Your task to perform on an android device: turn notification dots off Image 0: 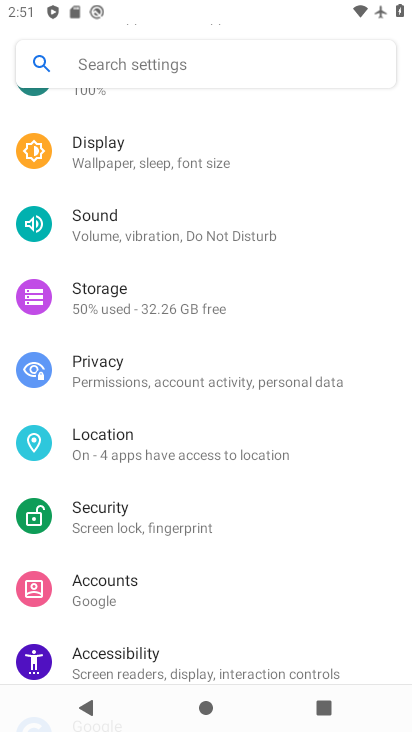
Step 0: press back button
Your task to perform on an android device: turn notification dots off Image 1: 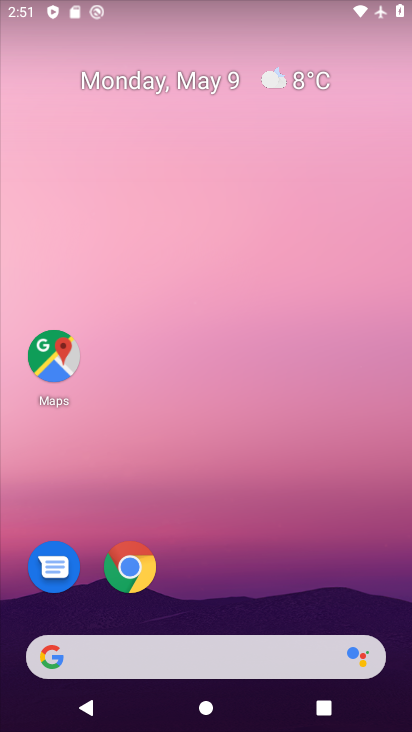
Step 1: drag from (296, 571) to (230, 6)
Your task to perform on an android device: turn notification dots off Image 2: 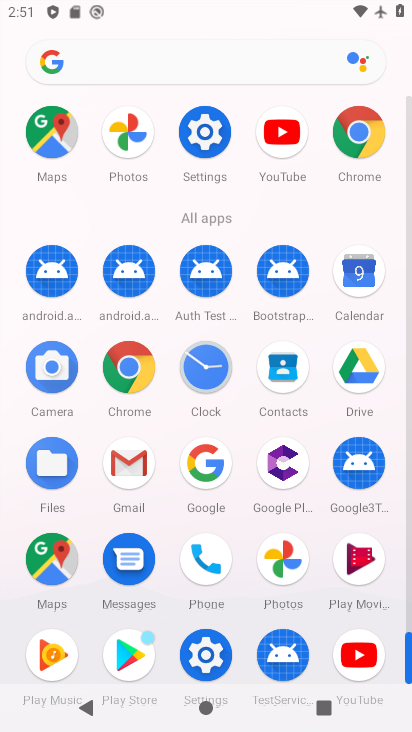
Step 2: click (202, 131)
Your task to perform on an android device: turn notification dots off Image 3: 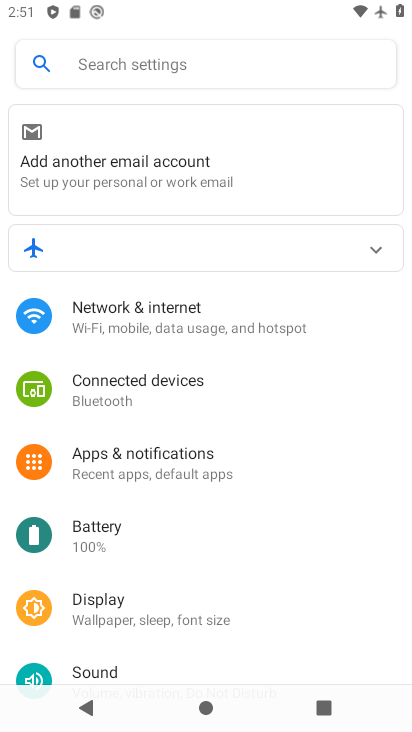
Step 3: drag from (283, 492) to (288, 78)
Your task to perform on an android device: turn notification dots off Image 4: 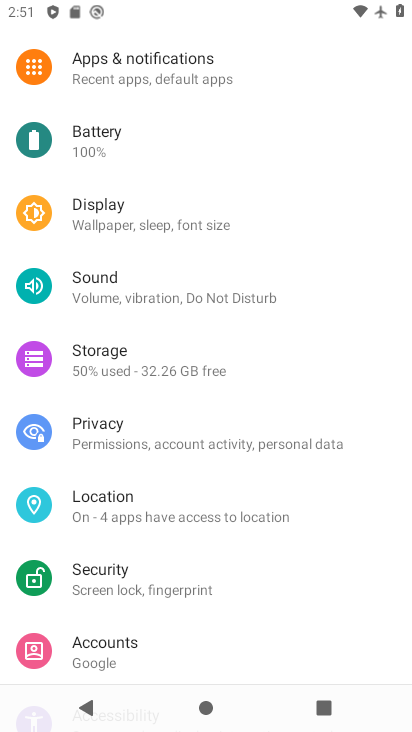
Step 4: click (165, 63)
Your task to perform on an android device: turn notification dots off Image 5: 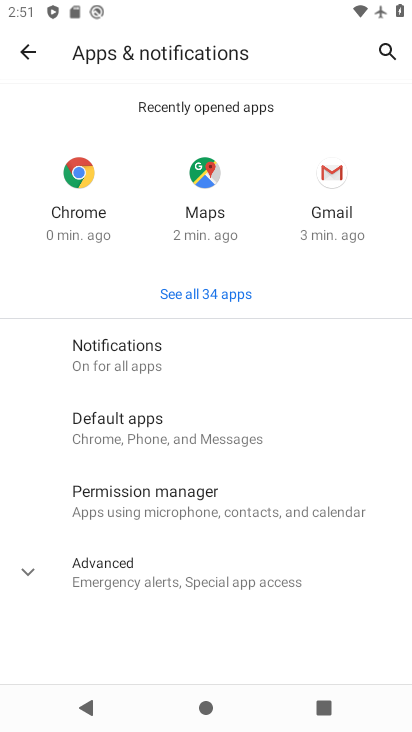
Step 5: click (170, 363)
Your task to perform on an android device: turn notification dots off Image 6: 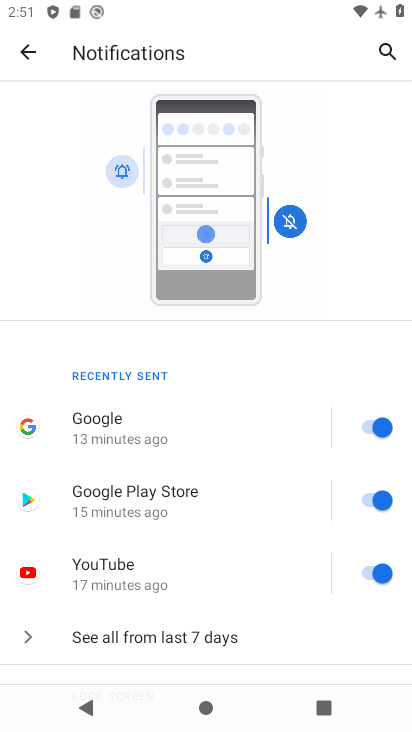
Step 6: drag from (234, 586) to (258, 132)
Your task to perform on an android device: turn notification dots off Image 7: 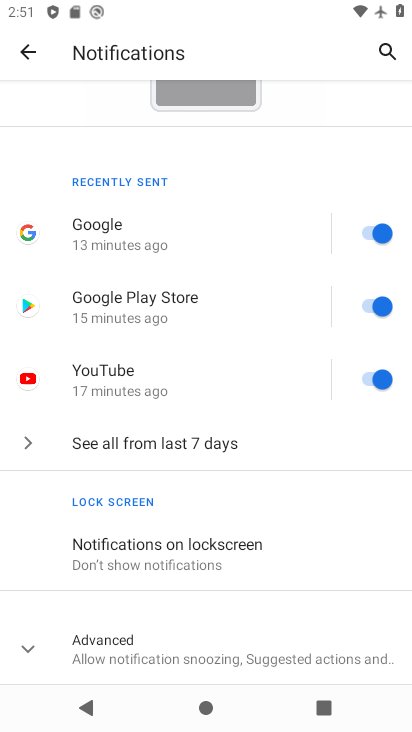
Step 7: drag from (226, 565) to (245, 156)
Your task to perform on an android device: turn notification dots off Image 8: 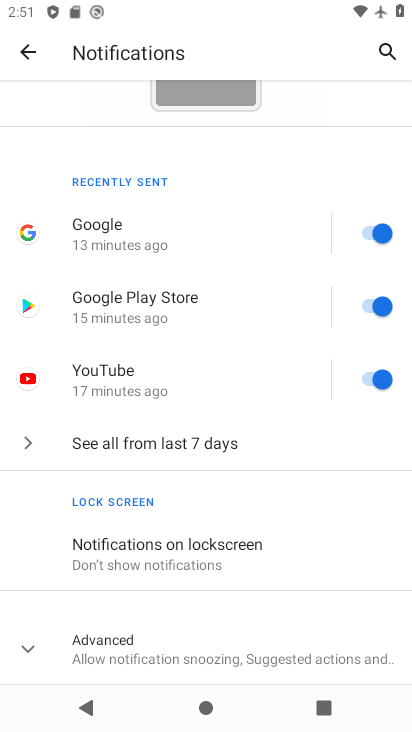
Step 8: drag from (204, 504) to (230, 189)
Your task to perform on an android device: turn notification dots off Image 9: 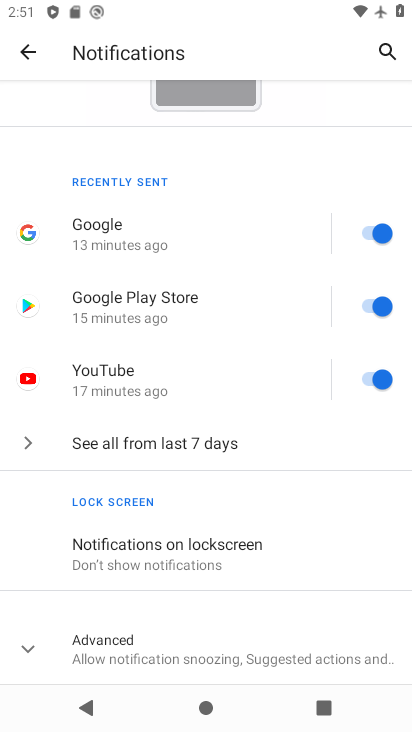
Step 9: drag from (175, 627) to (190, 269)
Your task to perform on an android device: turn notification dots off Image 10: 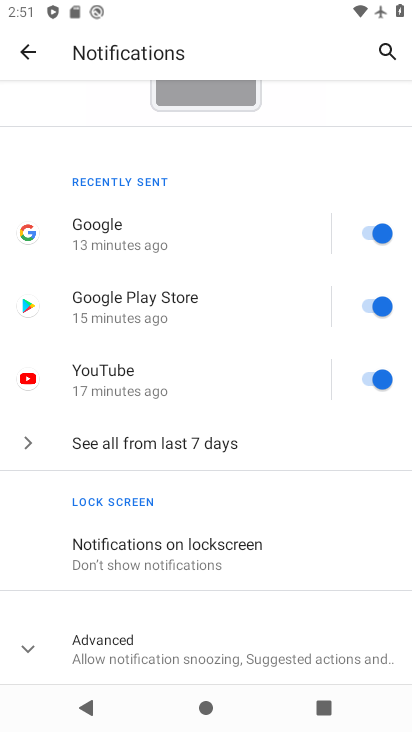
Step 10: click (40, 640)
Your task to perform on an android device: turn notification dots off Image 11: 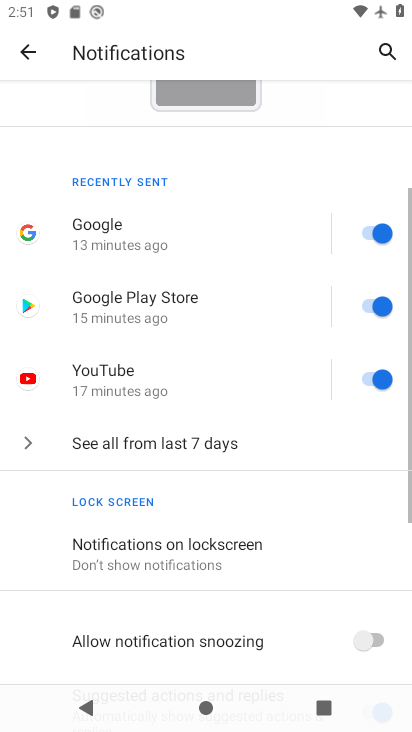
Step 11: drag from (211, 618) to (227, 177)
Your task to perform on an android device: turn notification dots off Image 12: 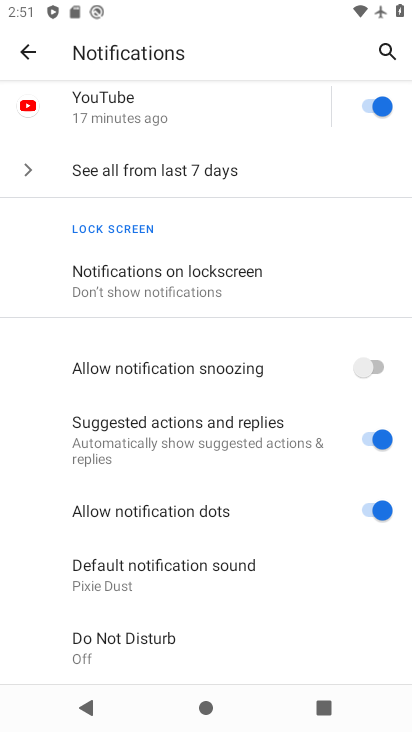
Step 12: drag from (227, 244) to (229, 640)
Your task to perform on an android device: turn notification dots off Image 13: 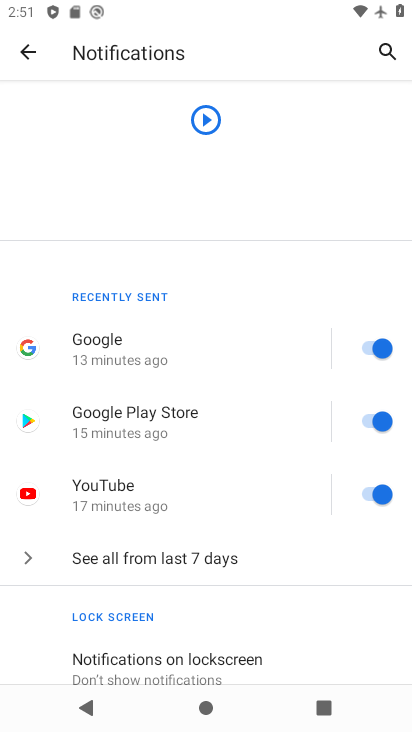
Step 13: drag from (205, 569) to (210, 97)
Your task to perform on an android device: turn notification dots off Image 14: 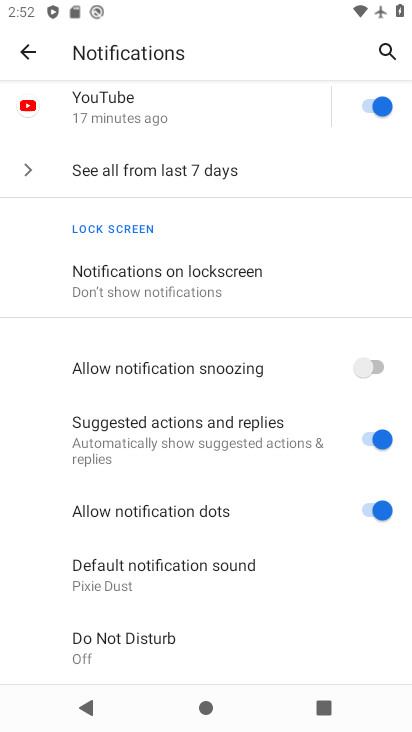
Step 14: click (373, 505)
Your task to perform on an android device: turn notification dots off Image 15: 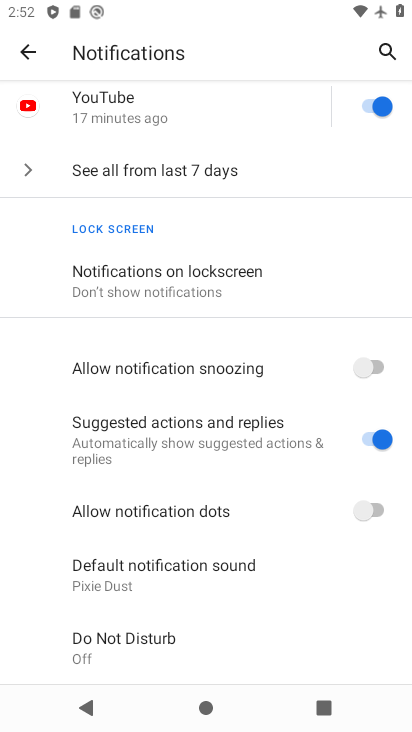
Step 15: task complete